Your task to perform on an android device: add a contact Image 0: 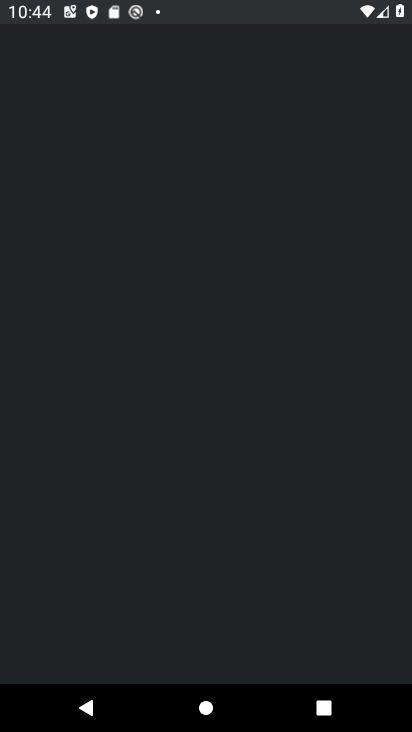
Step 0: press home button
Your task to perform on an android device: add a contact Image 1: 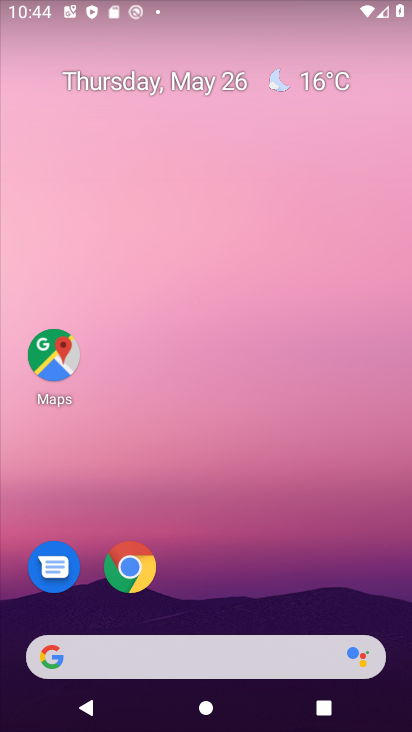
Step 1: drag from (221, 613) to (197, 28)
Your task to perform on an android device: add a contact Image 2: 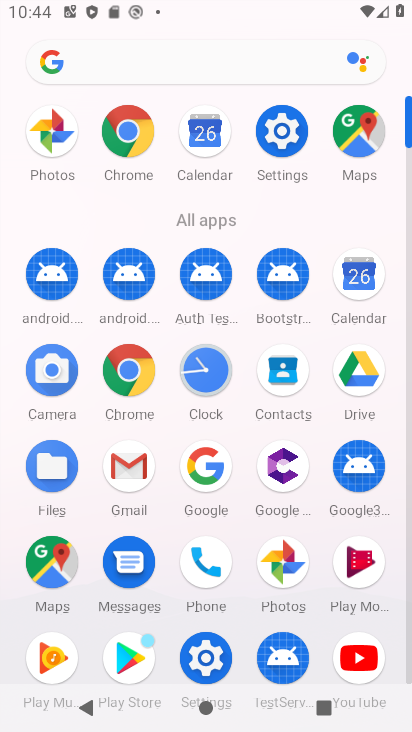
Step 2: click (284, 365)
Your task to perform on an android device: add a contact Image 3: 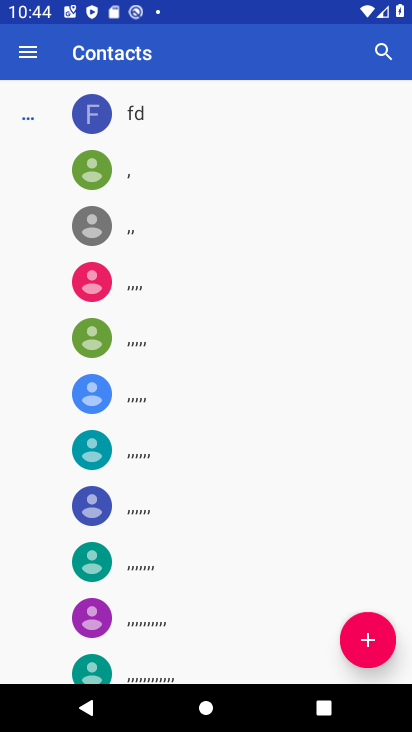
Step 3: click (368, 635)
Your task to perform on an android device: add a contact Image 4: 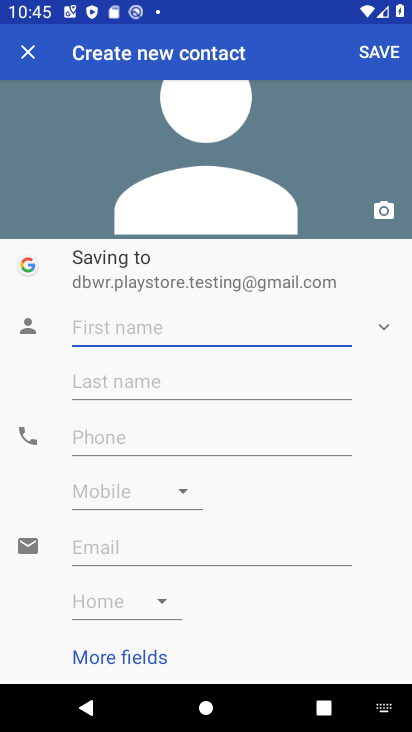
Step 4: type "bvcgf"
Your task to perform on an android device: add a contact Image 5: 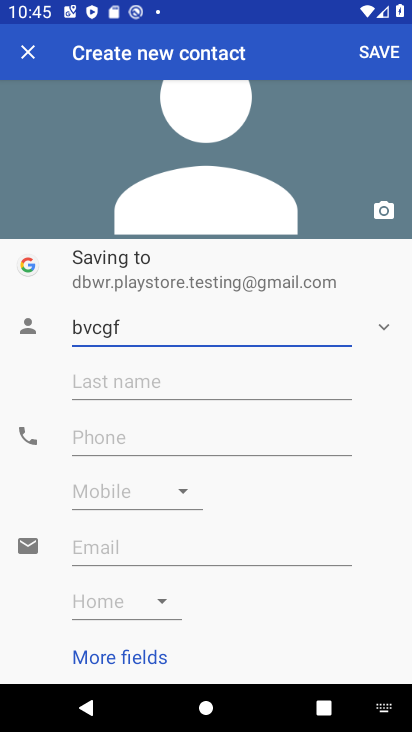
Step 5: click (373, 64)
Your task to perform on an android device: add a contact Image 6: 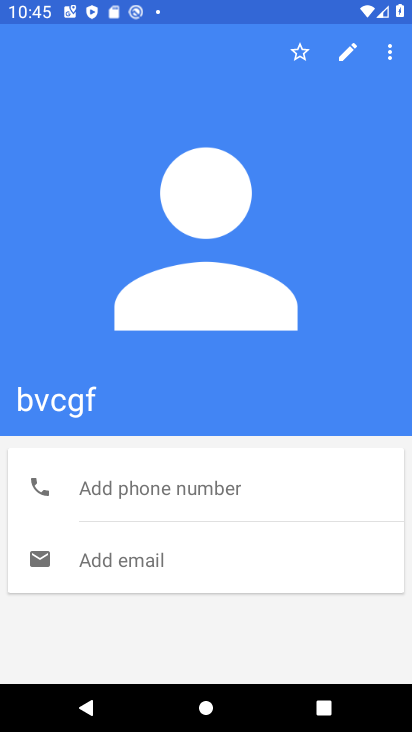
Step 6: task complete